Your task to perform on an android device: open sync settings in chrome Image 0: 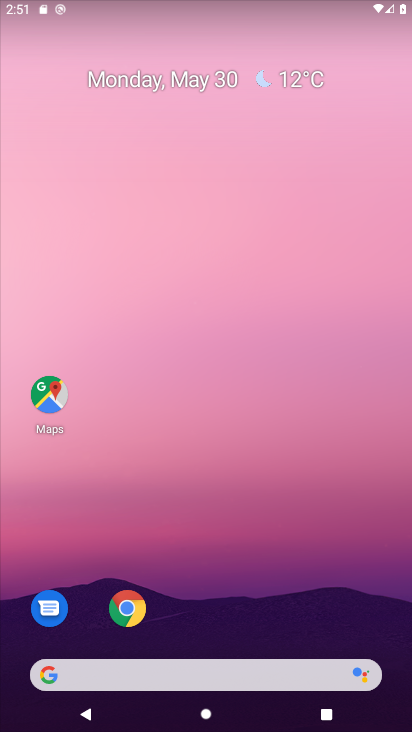
Step 0: click (136, 614)
Your task to perform on an android device: open sync settings in chrome Image 1: 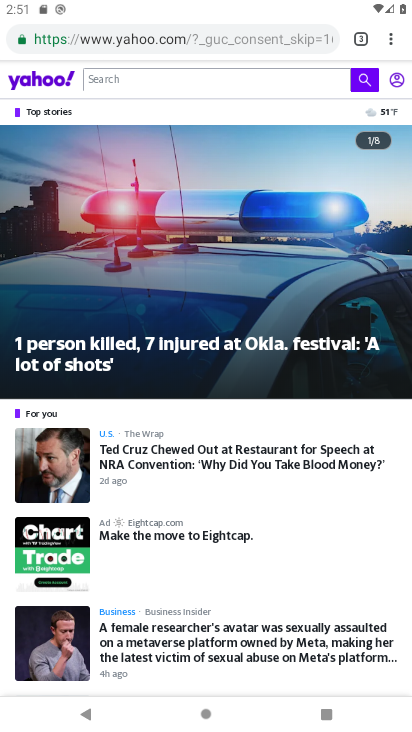
Step 1: click (393, 43)
Your task to perform on an android device: open sync settings in chrome Image 2: 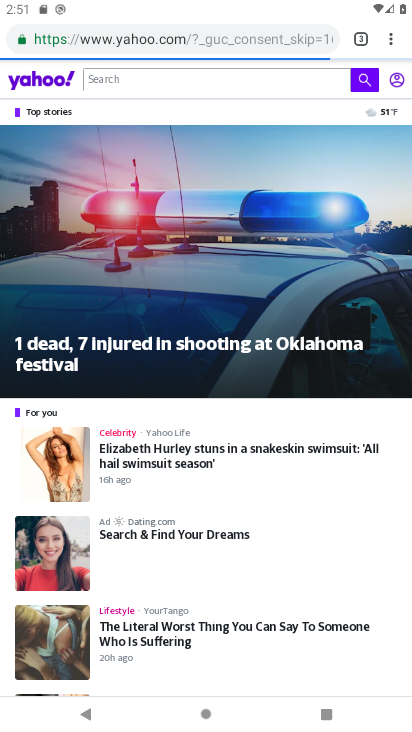
Step 2: click (385, 37)
Your task to perform on an android device: open sync settings in chrome Image 3: 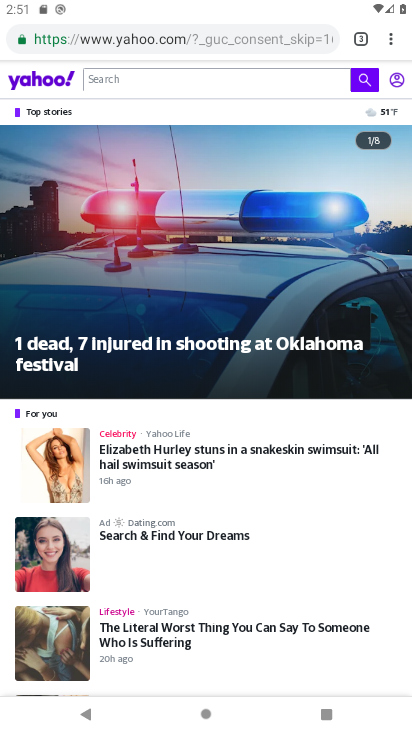
Step 3: click (385, 37)
Your task to perform on an android device: open sync settings in chrome Image 4: 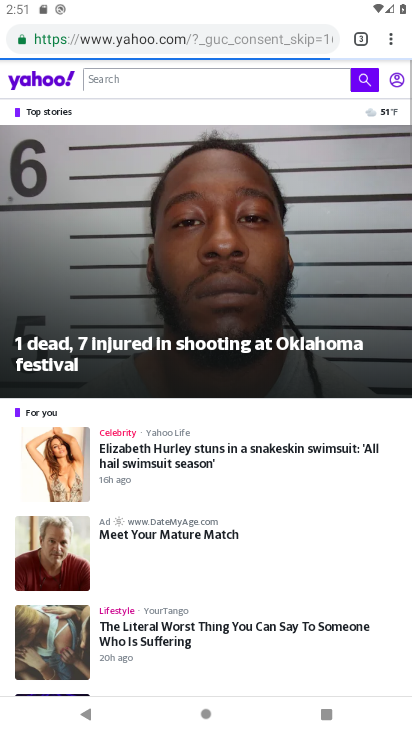
Step 4: click (385, 37)
Your task to perform on an android device: open sync settings in chrome Image 5: 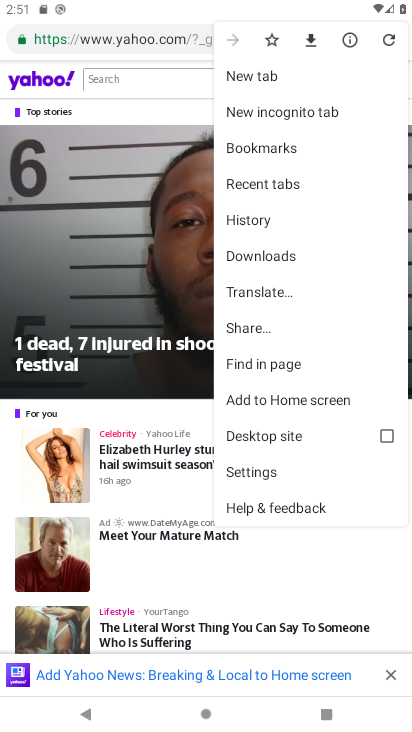
Step 5: click (277, 468)
Your task to perform on an android device: open sync settings in chrome Image 6: 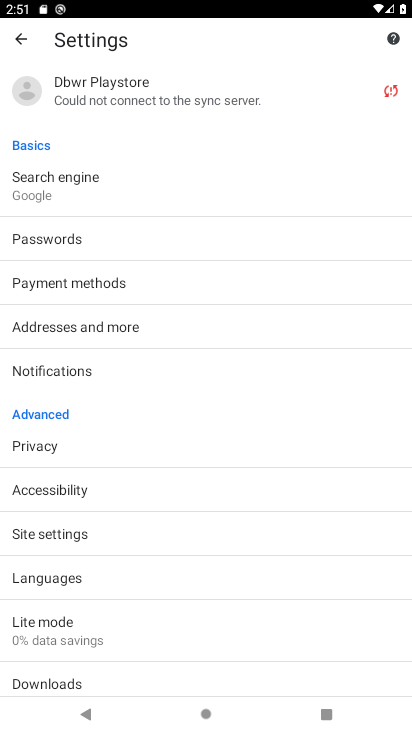
Step 6: click (96, 530)
Your task to perform on an android device: open sync settings in chrome Image 7: 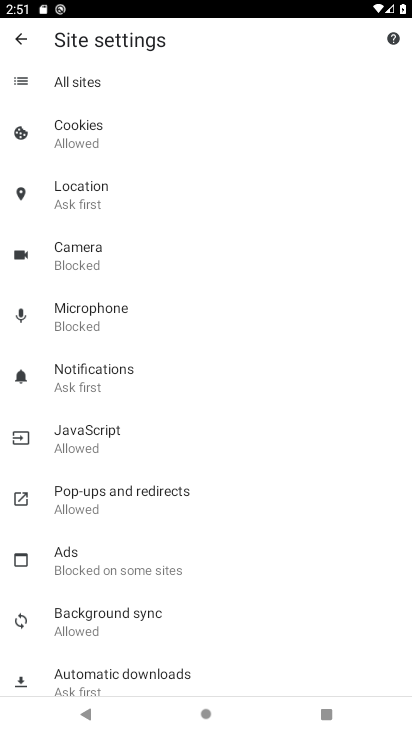
Step 7: click (173, 627)
Your task to perform on an android device: open sync settings in chrome Image 8: 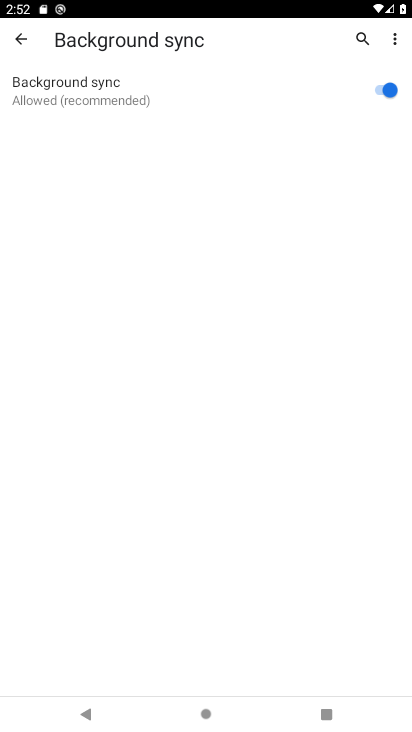
Step 8: task complete